Your task to perform on an android device: Toggle the flashlight Image 0: 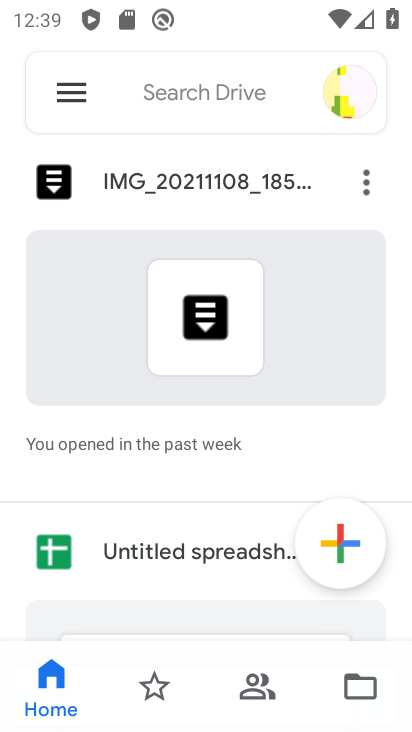
Step 0: press home button
Your task to perform on an android device: Toggle the flashlight Image 1: 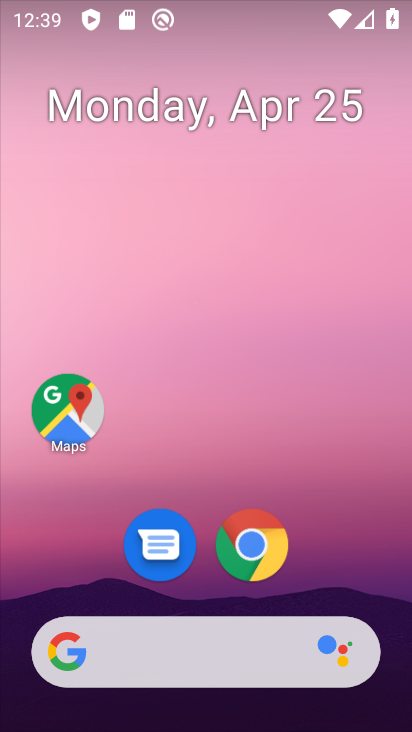
Step 1: drag from (261, 486) to (63, 52)
Your task to perform on an android device: Toggle the flashlight Image 2: 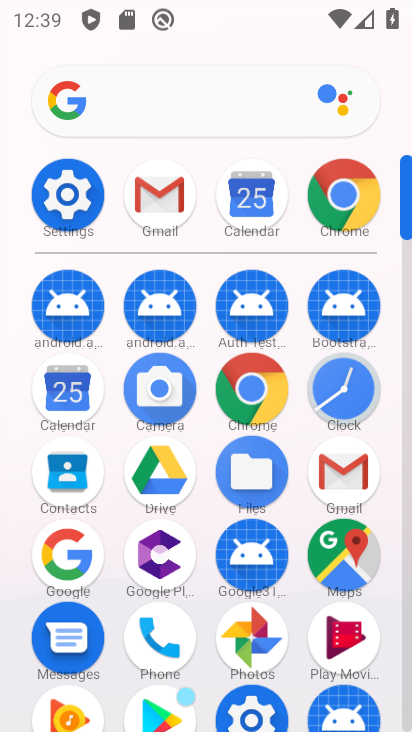
Step 2: click (62, 179)
Your task to perform on an android device: Toggle the flashlight Image 3: 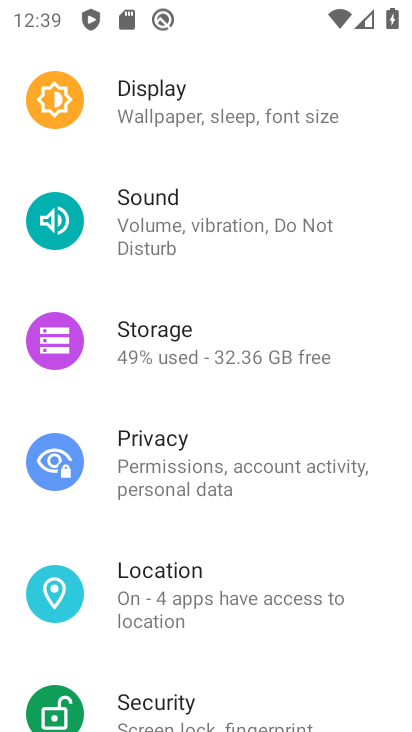
Step 3: drag from (281, 136) to (259, 547)
Your task to perform on an android device: Toggle the flashlight Image 4: 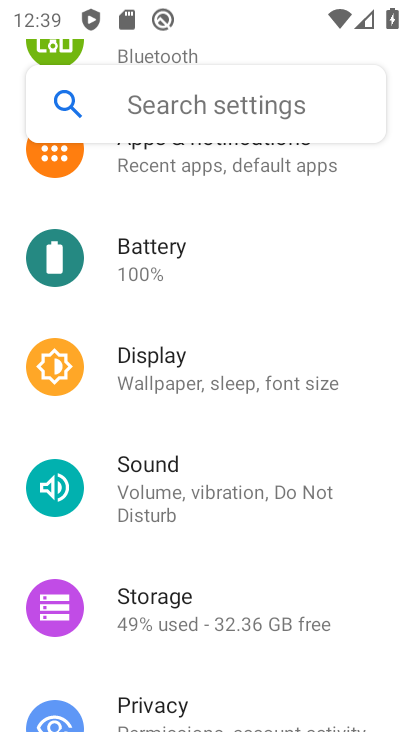
Step 4: click (178, 96)
Your task to perform on an android device: Toggle the flashlight Image 5: 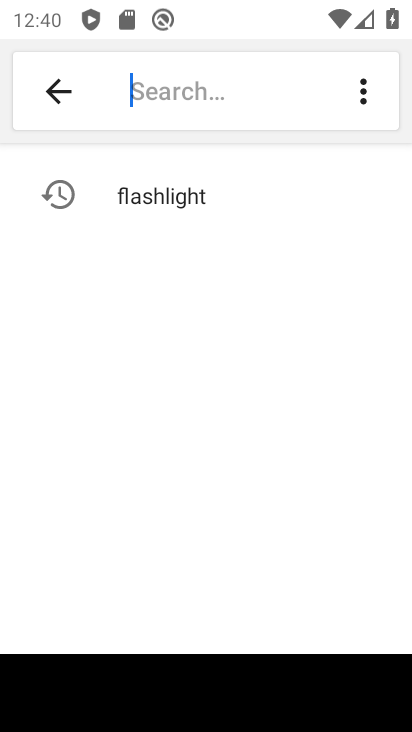
Step 5: click (165, 196)
Your task to perform on an android device: Toggle the flashlight Image 6: 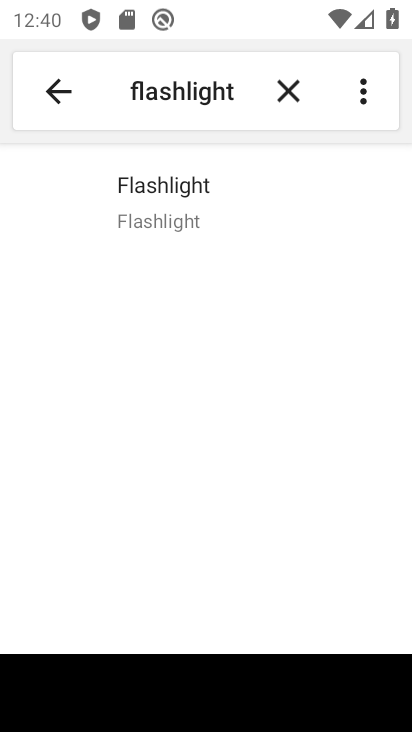
Step 6: click (164, 217)
Your task to perform on an android device: Toggle the flashlight Image 7: 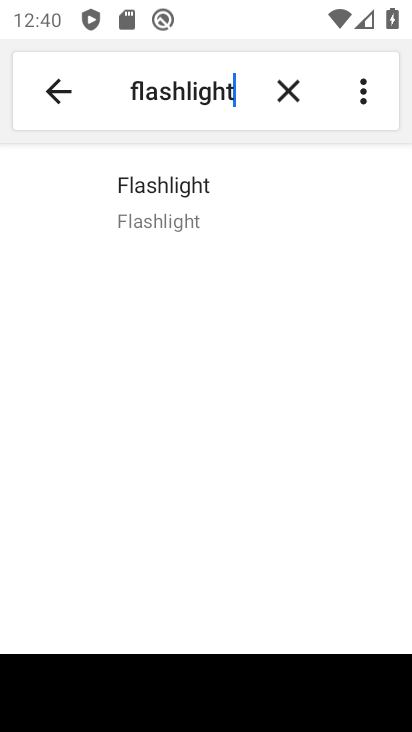
Step 7: click (164, 217)
Your task to perform on an android device: Toggle the flashlight Image 8: 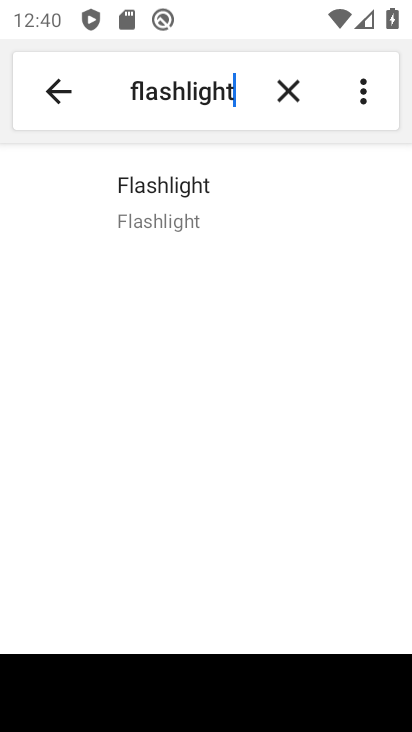
Step 8: task complete